Your task to perform on an android device: turn on notifications settings in the gmail app Image 0: 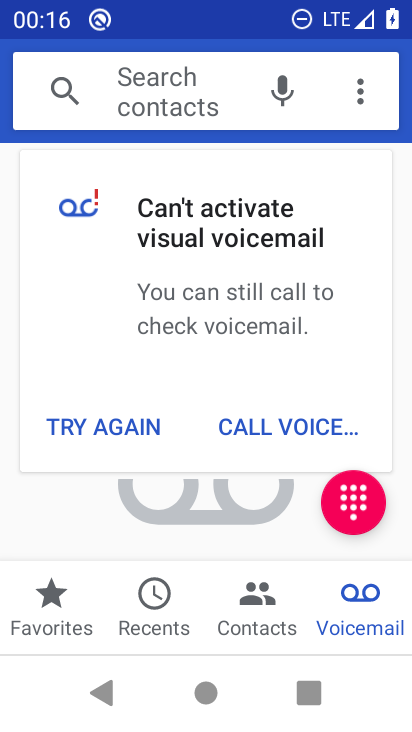
Step 0: press home button
Your task to perform on an android device: turn on notifications settings in the gmail app Image 1: 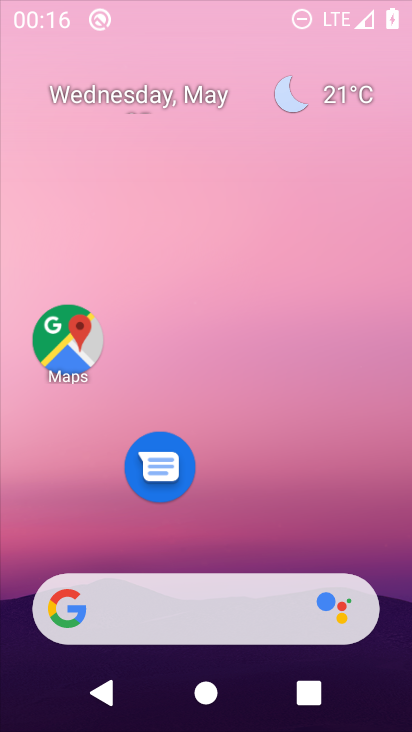
Step 1: drag from (157, 548) to (250, 30)
Your task to perform on an android device: turn on notifications settings in the gmail app Image 2: 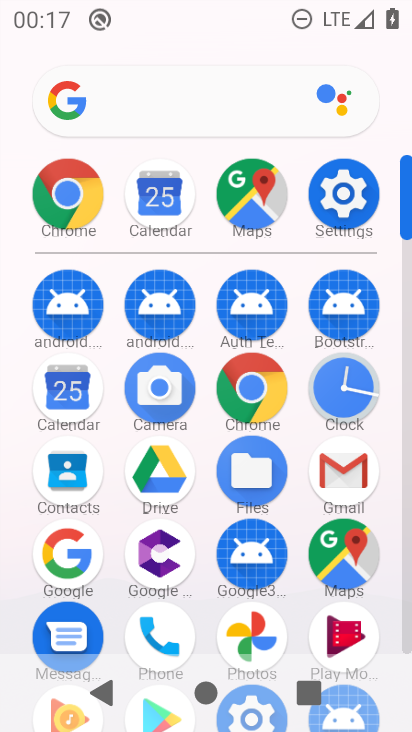
Step 2: drag from (213, 612) to (239, 195)
Your task to perform on an android device: turn on notifications settings in the gmail app Image 3: 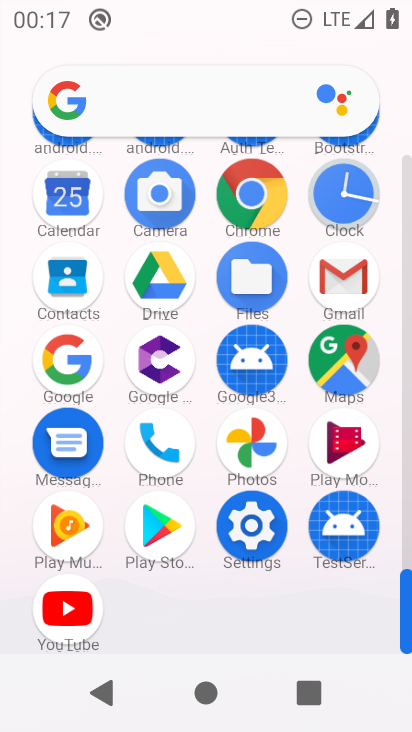
Step 3: click (350, 274)
Your task to perform on an android device: turn on notifications settings in the gmail app Image 4: 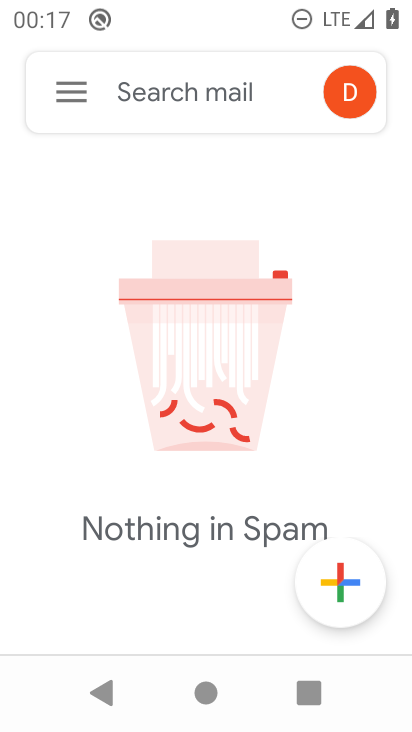
Step 4: click (75, 90)
Your task to perform on an android device: turn on notifications settings in the gmail app Image 5: 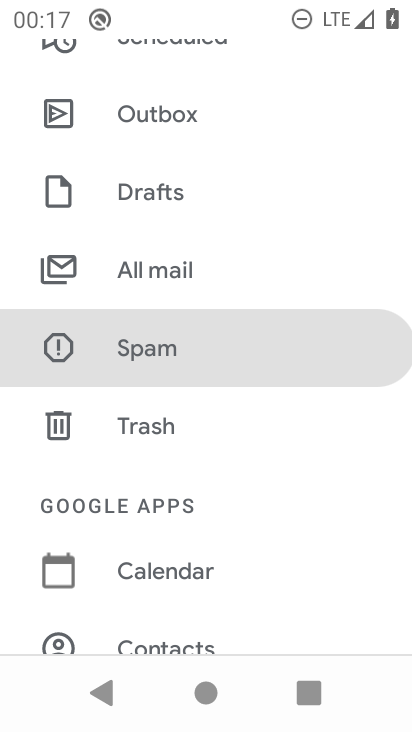
Step 5: drag from (131, 479) to (204, 173)
Your task to perform on an android device: turn on notifications settings in the gmail app Image 6: 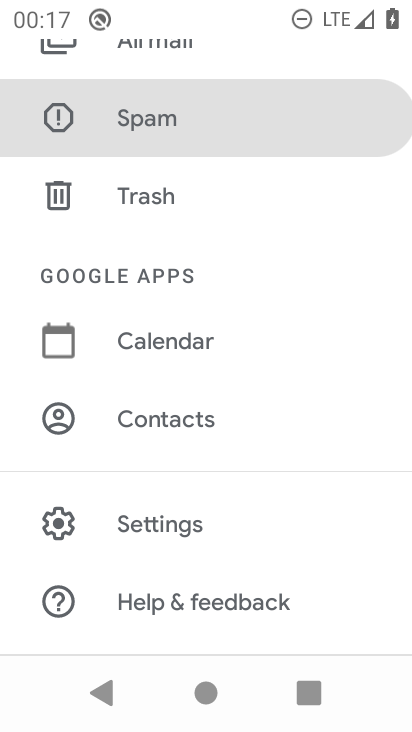
Step 6: click (175, 529)
Your task to perform on an android device: turn on notifications settings in the gmail app Image 7: 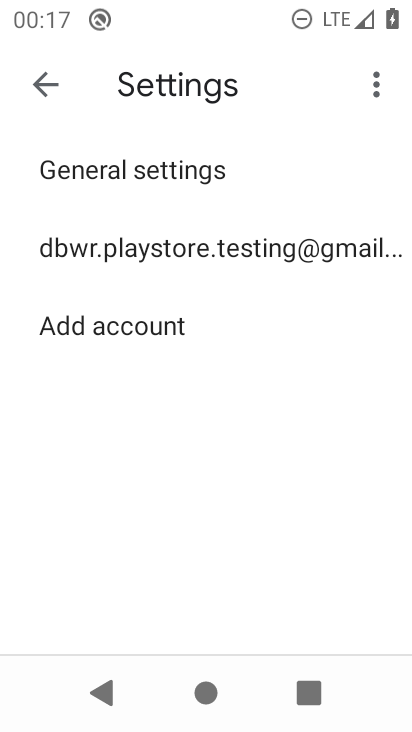
Step 7: drag from (192, 501) to (231, 238)
Your task to perform on an android device: turn on notifications settings in the gmail app Image 8: 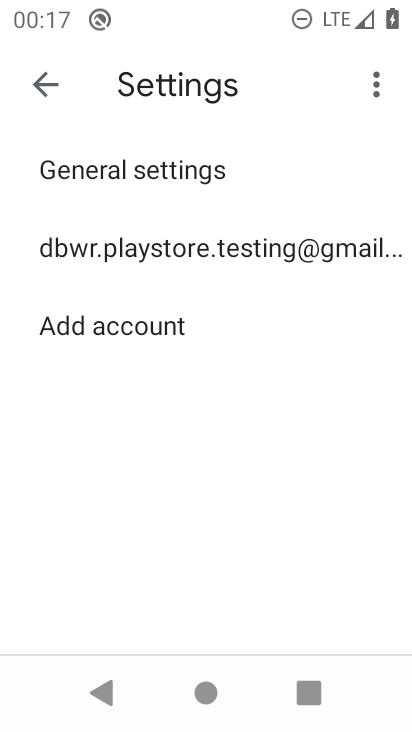
Step 8: click (191, 237)
Your task to perform on an android device: turn on notifications settings in the gmail app Image 9: 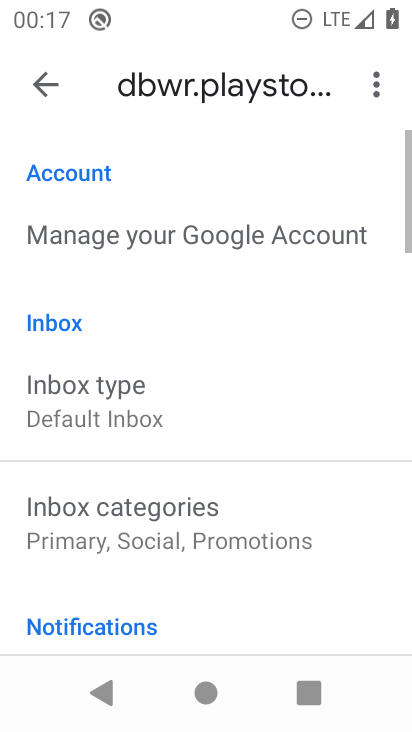
Step 9: drag from (197, 520) to (226, 286)
Your task to perform on an android device: turn on notifications settings in the gmail app Image 10: 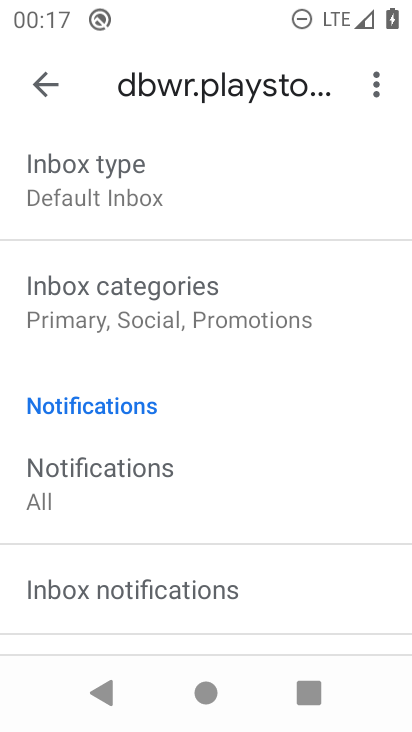
Step 10: drag from (204, 554) to (217, 112)
Your task to perform on an android device: turn on notifications settings in the gmail app Image 11: 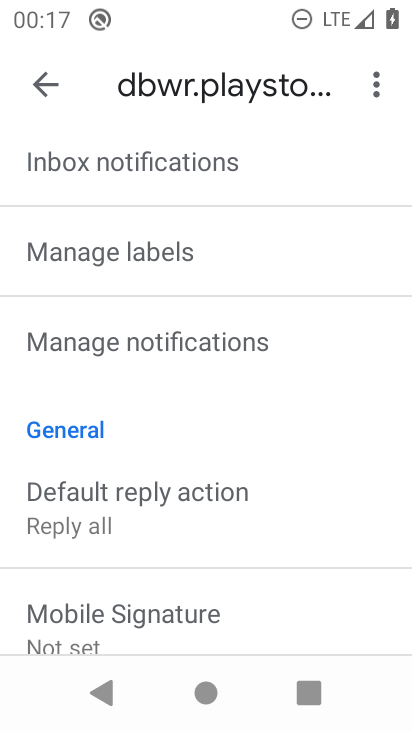
Step 11: click (176, 332)
Your task to perform on an android device: turn on notifications settings in the gmail app Image 12: 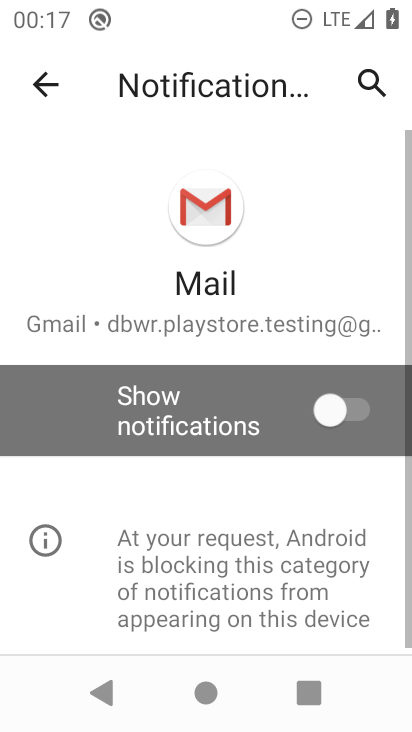
Step 12: drag from (259, 532) to (286, 293)
Your task to perform on an android device: turn on notifications settings in the gmail app Image 13: 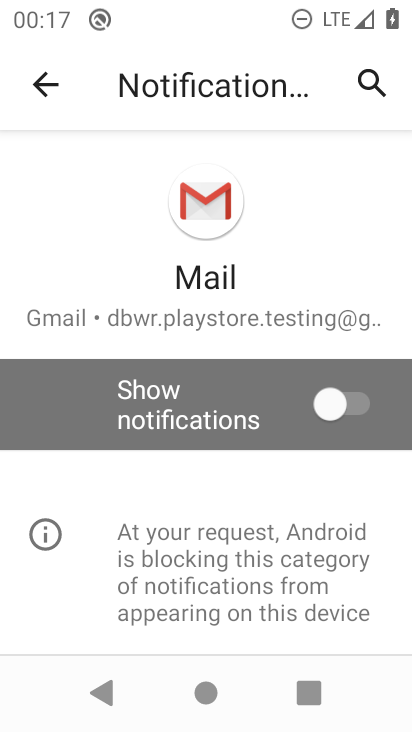
Step 13: click (326, 403)
Your task to perform on an android device: turn on notifications settings in the gmail app Image 14: 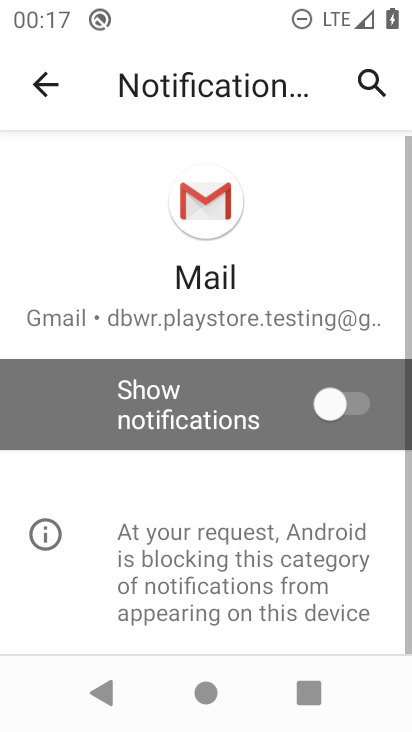
Step 14: task complete